Your task to perform on an android device: Show me recent news Image 0: 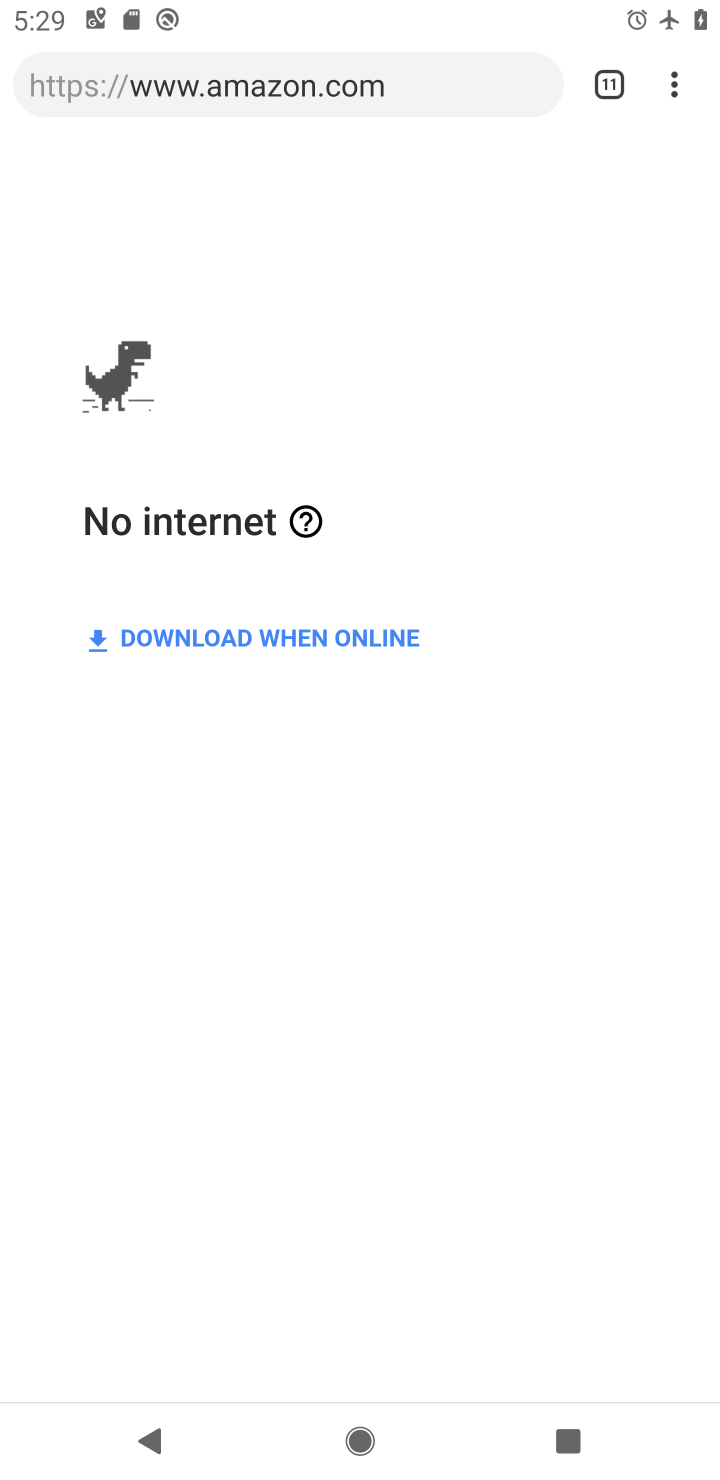
Step 0: press home button
Your task to perform on an android device: Show me recent news Image 1: 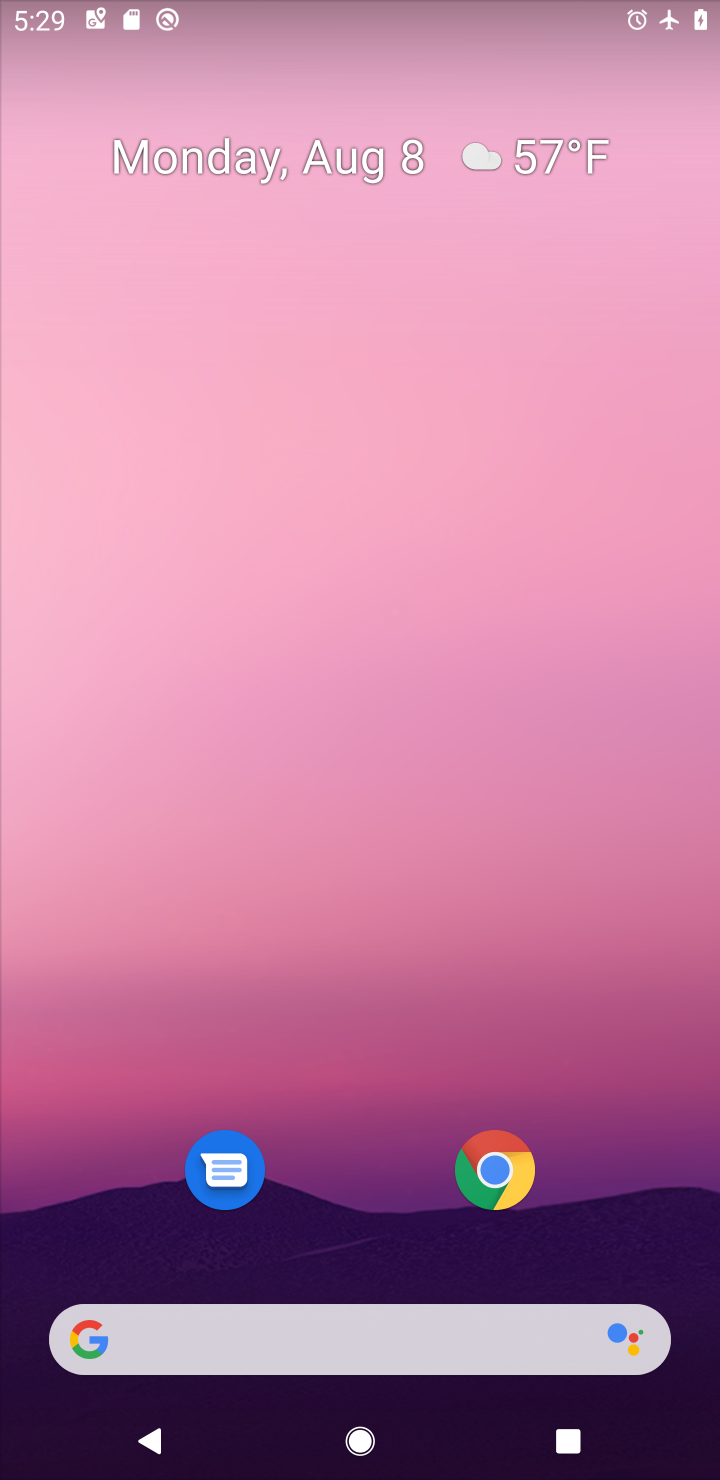
Step 1: drag from (339, 906) to (330, 260)
Your task to perform on an android device: Show me recent news Image 2: 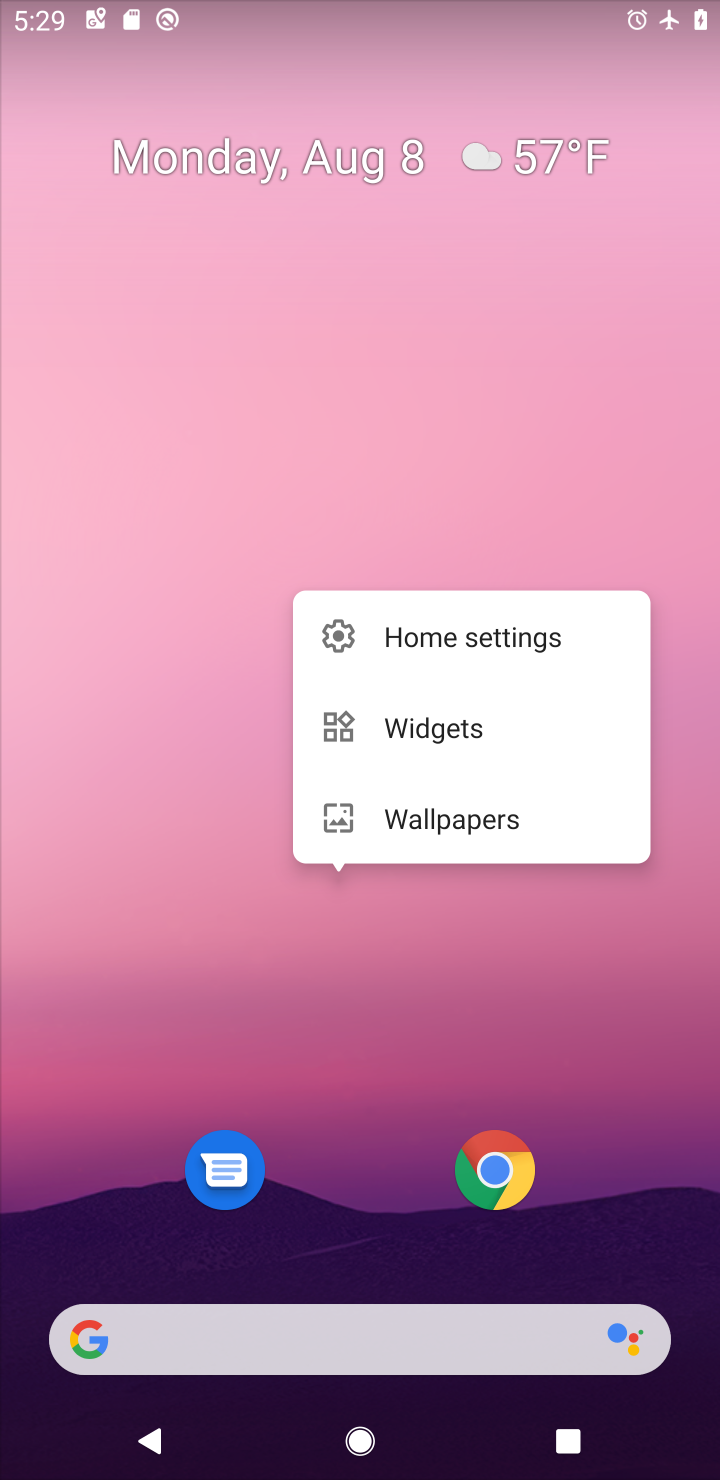
Step 2: click (353, 1039)
Your task to perform on an android device: Show me recent news Image 3: 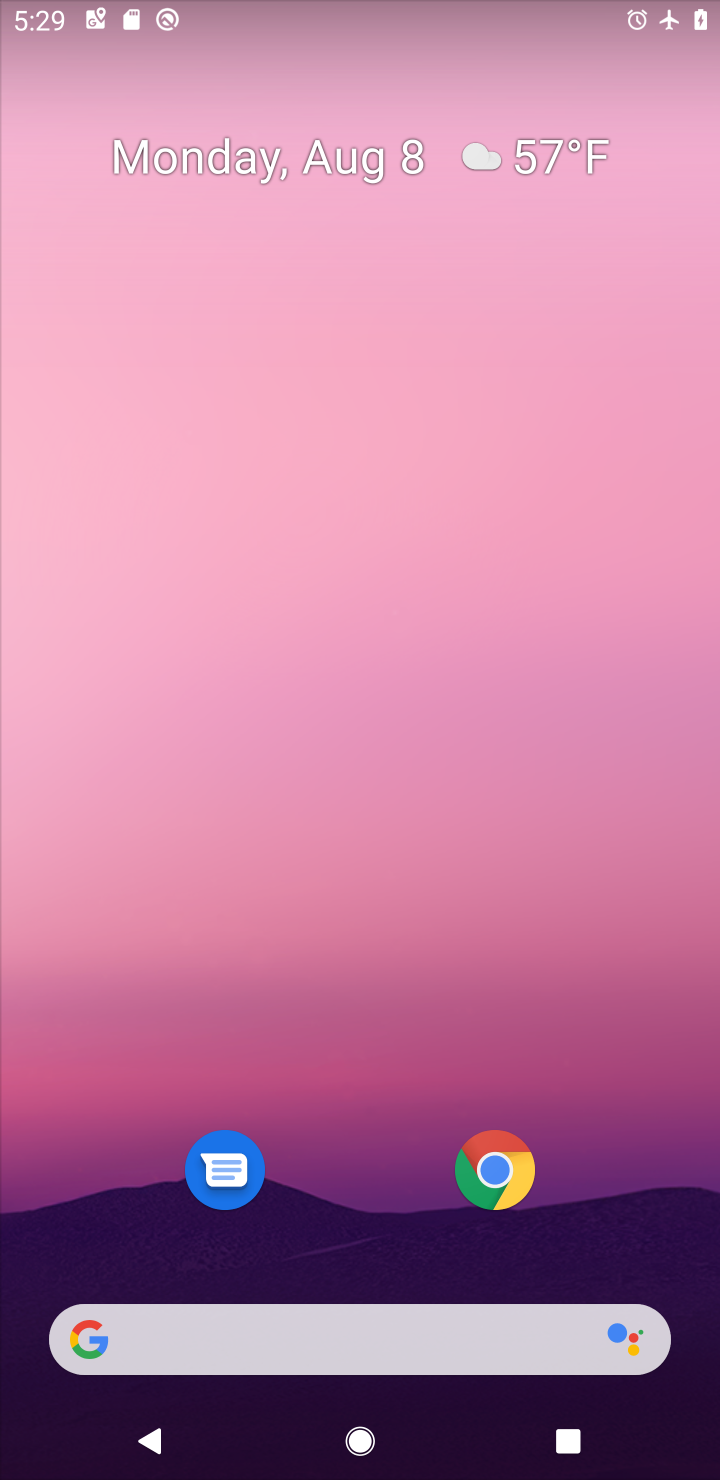
Step 3: drag from (361, 1206) to (355, 413)
Your task to perform on an android device: Show me recent news Image 4: 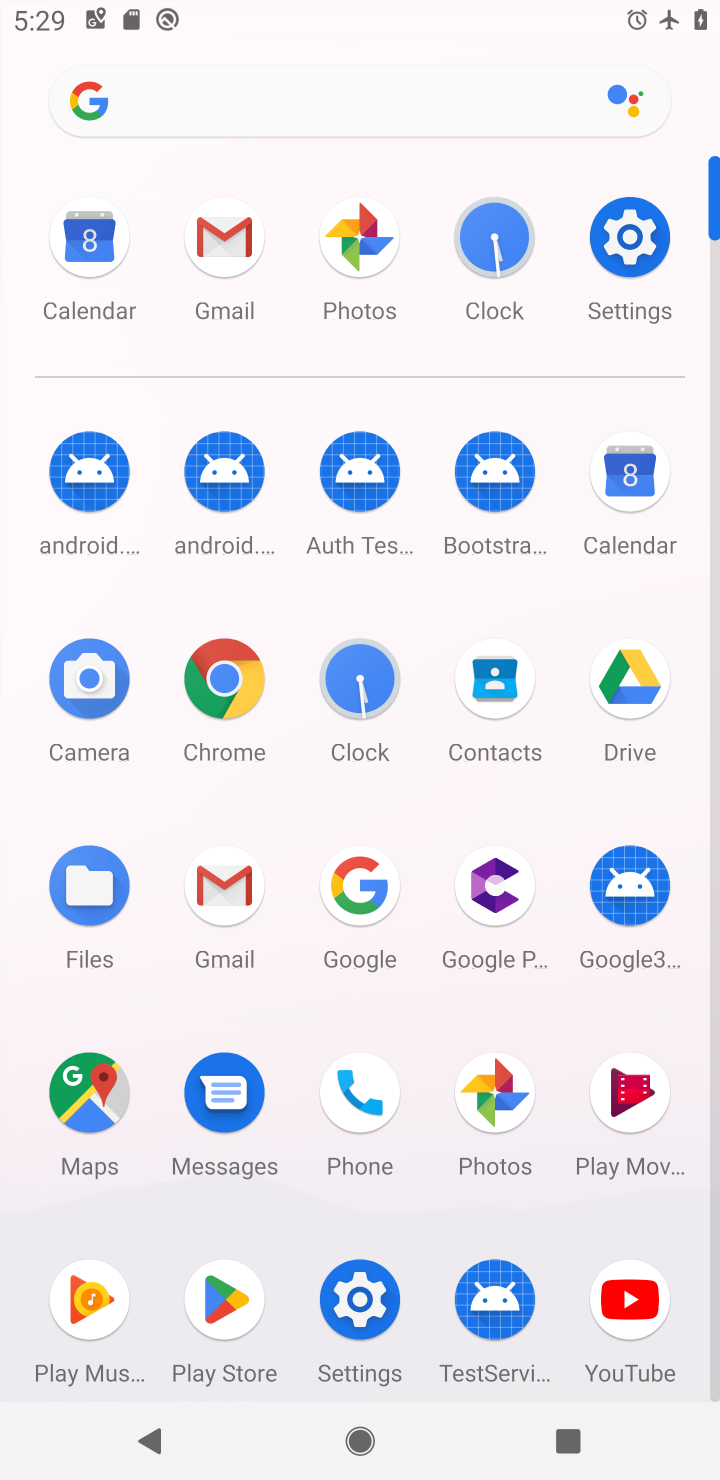
Step 4: click (346, 906)
Your task to perform on an android device: Show me recent news Image 5: 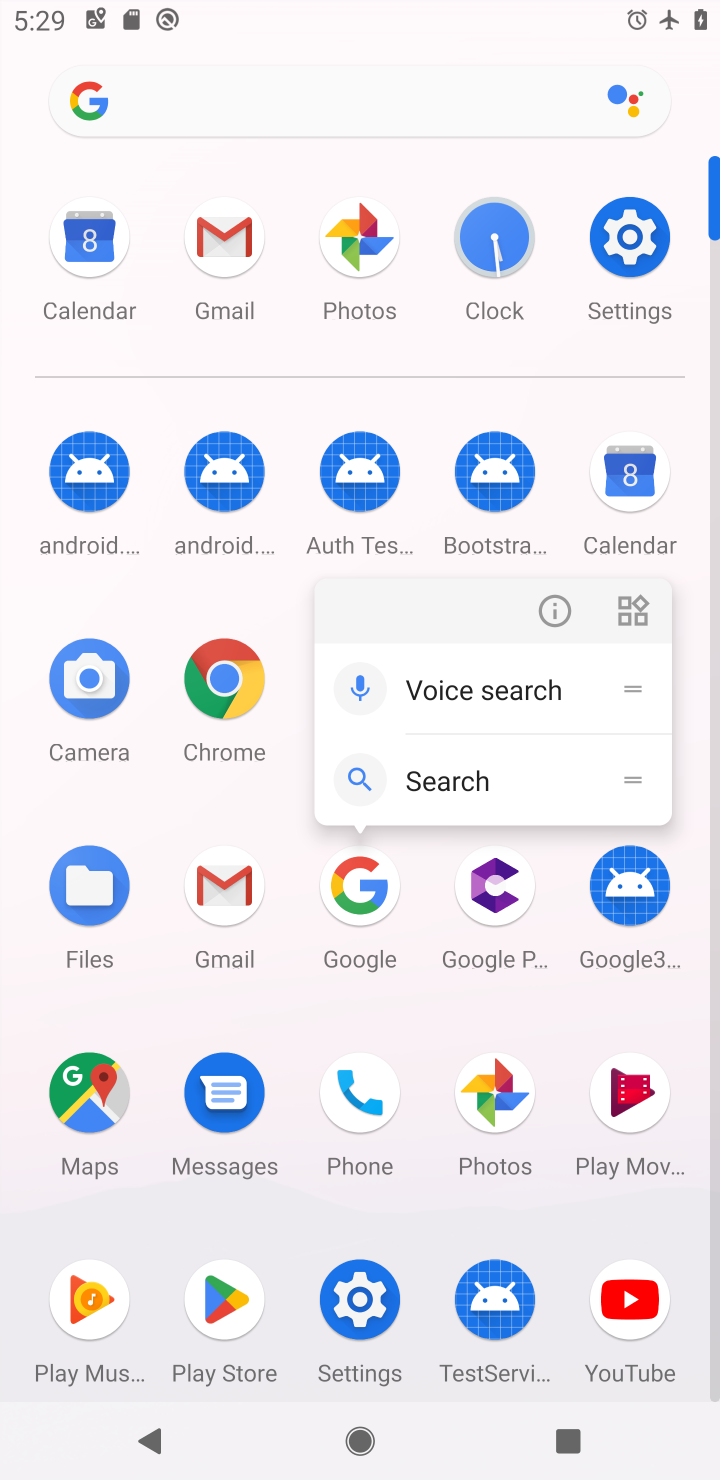
Step 5: click (332, 915)
Your task to perform on an android device: Show me recent news Image 6: 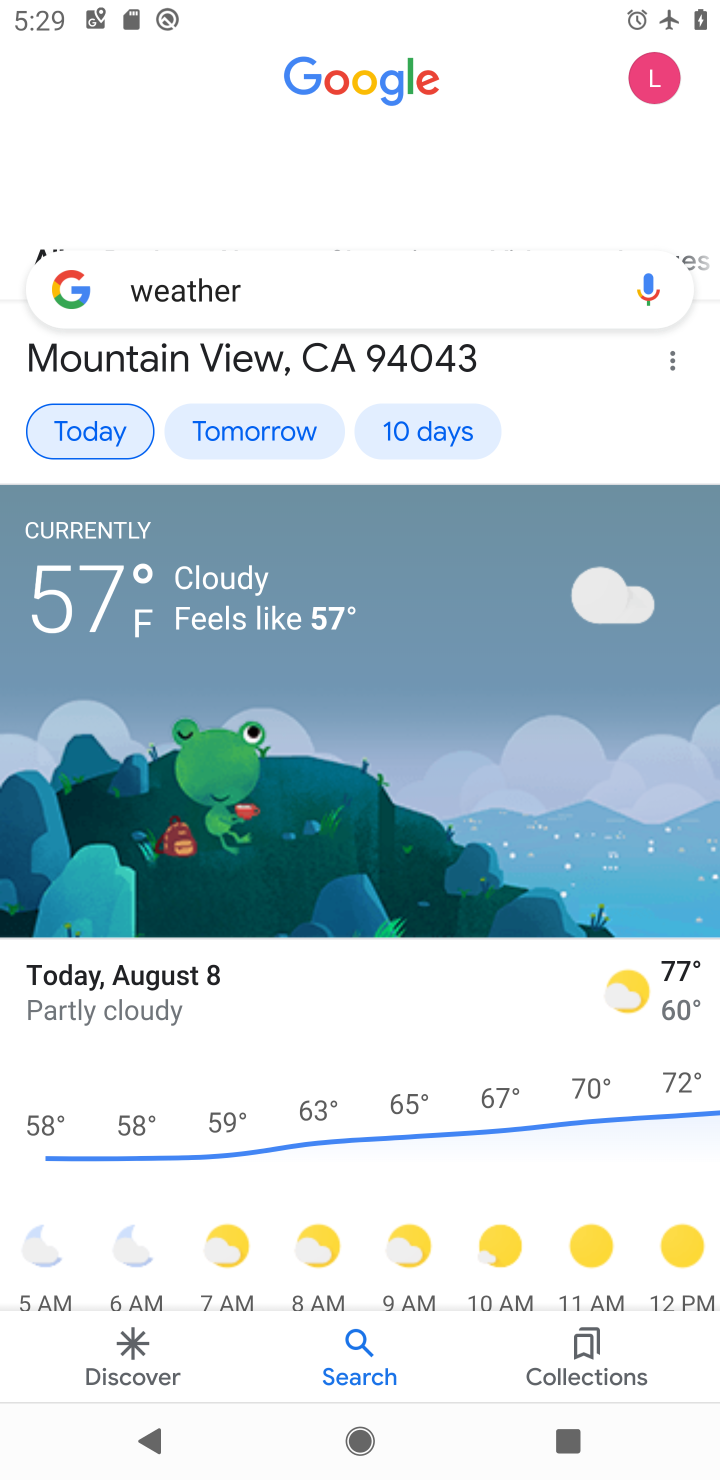
Step 6: click (388, 275)
Your task to perform on an android device: Show me recent news Image 7: 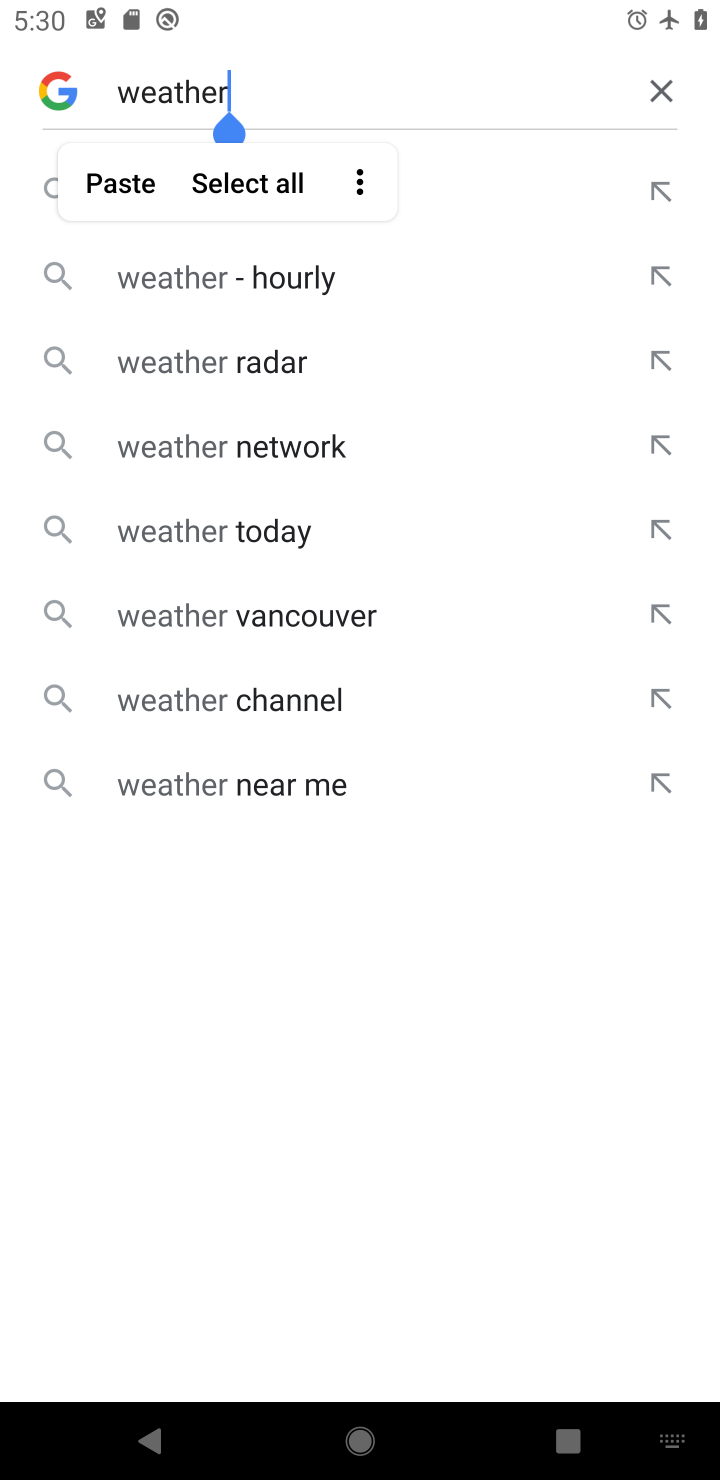
Step 7: click (649, 83)
Your task to perform on an android device: Show me recent news Image 8: 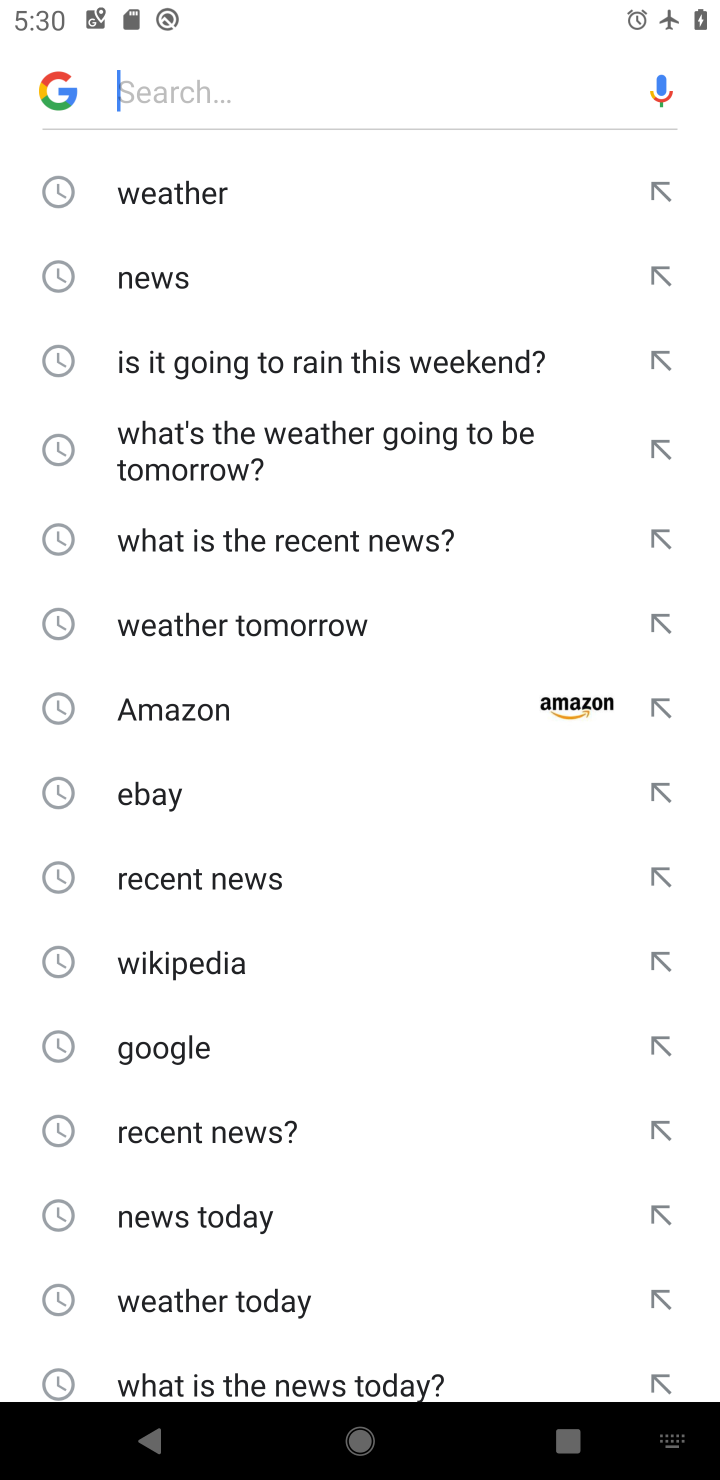
Step 8: click (218, 269)
Your task to perform on an android device: Show me recent news Image 9: 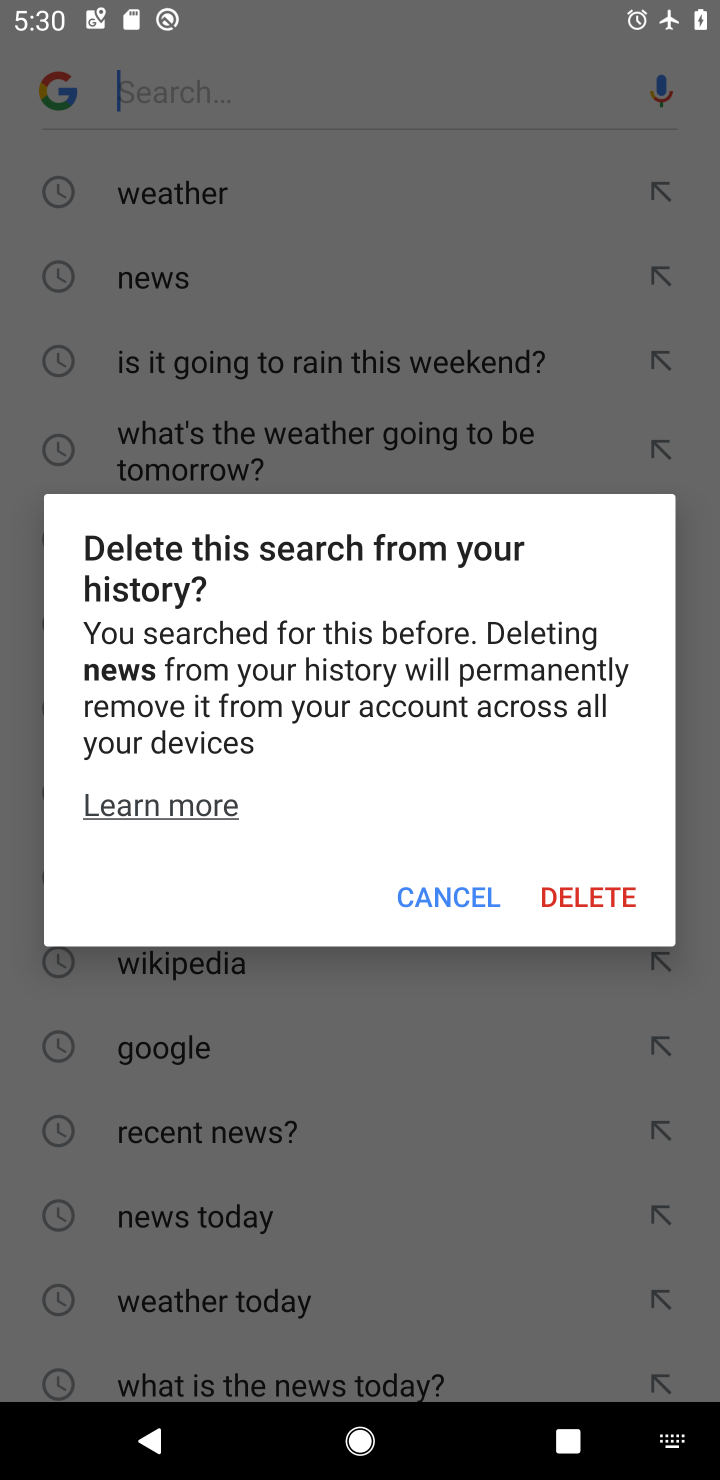
Step 9: click (423, 893)
Your task to perform on an android device: Show me recent news Image 10: 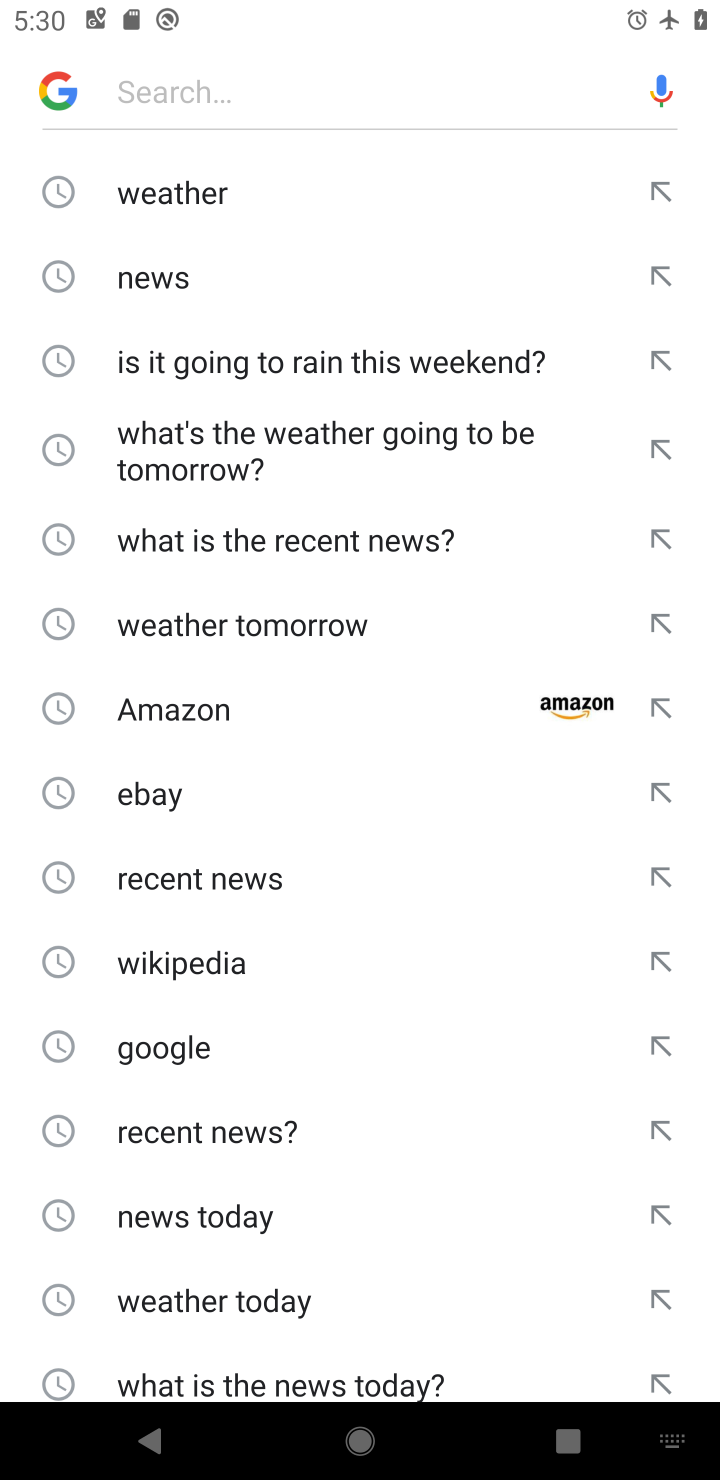
Step 10: click (147, 297)
Your task to perform on an android device: Show me recent news Image 11: 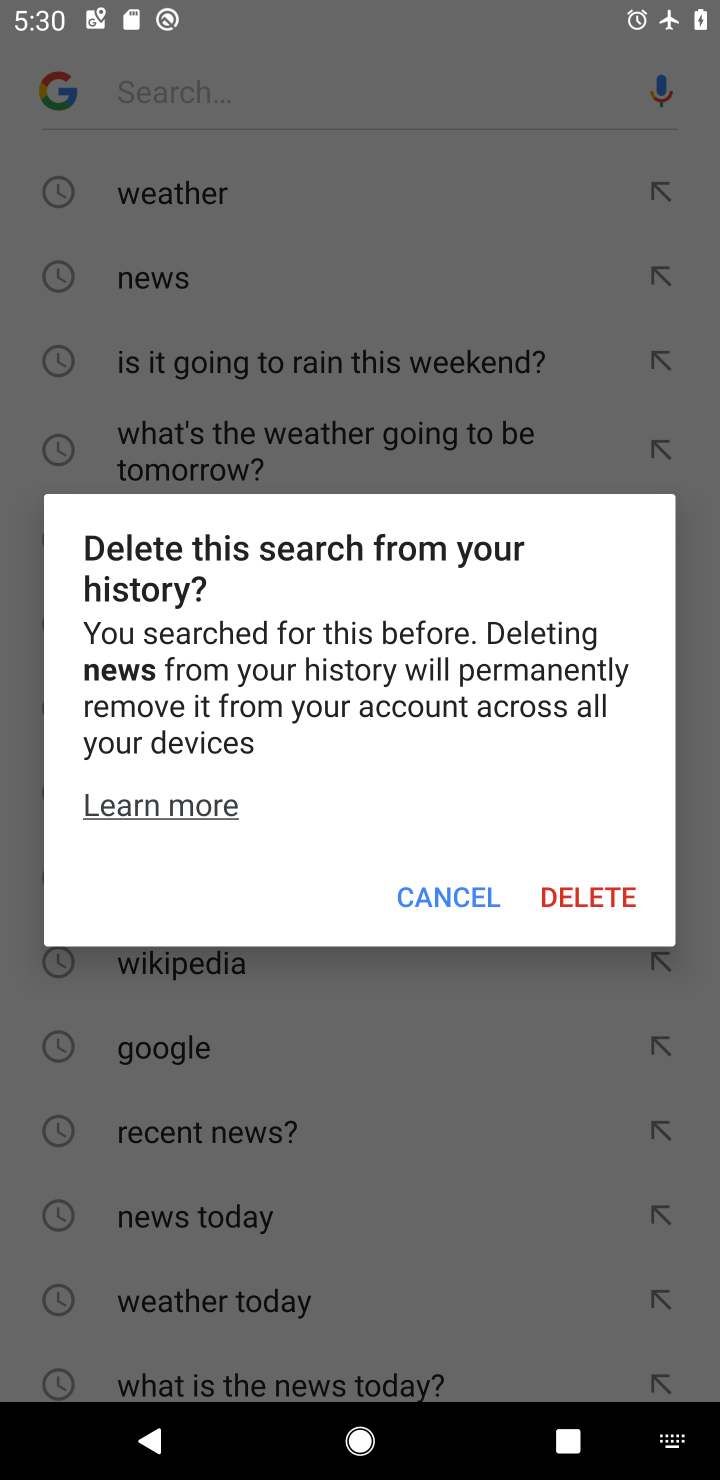
Step 11: click (485, 891)
Your task to perform on an android device: Show me recent news Image 12: 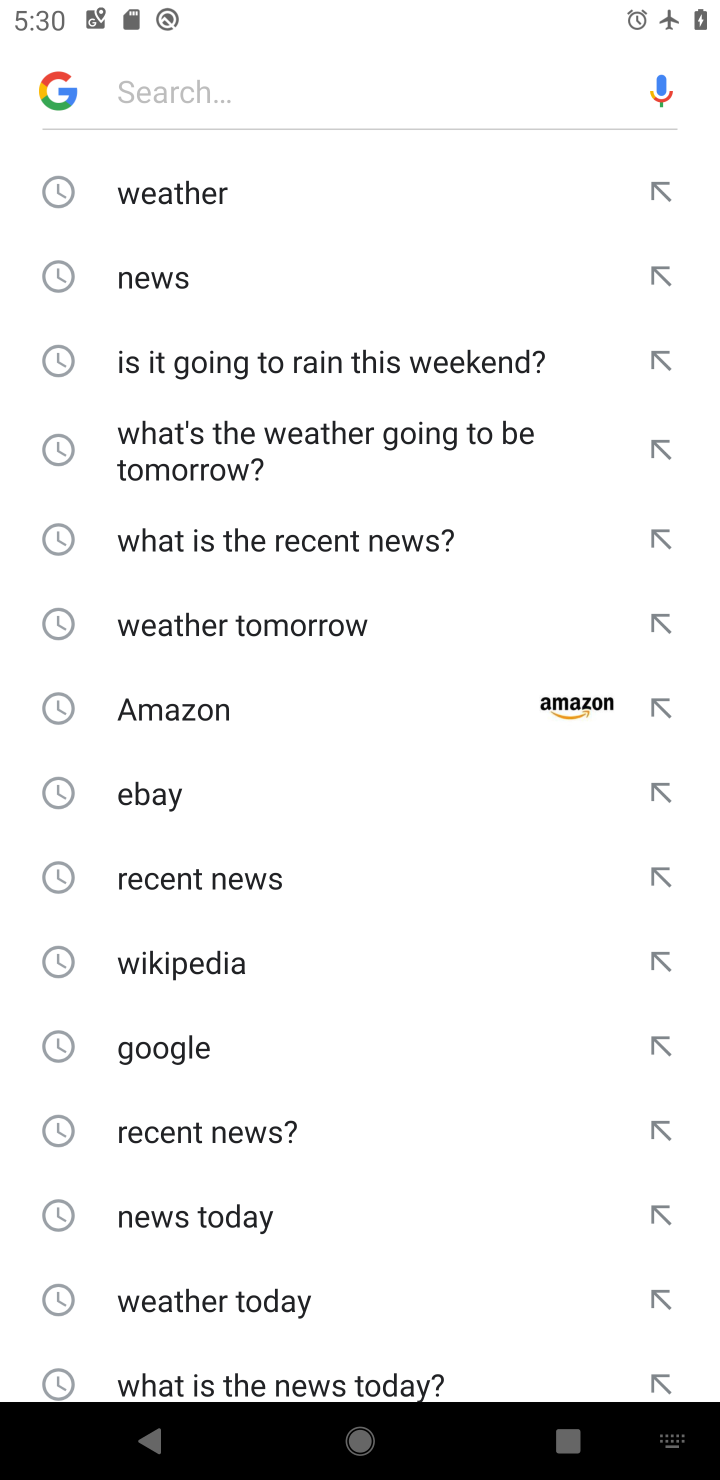
Step 12: click (118, 275)
Your task to perform on an android device: Show me recent news Image 13: 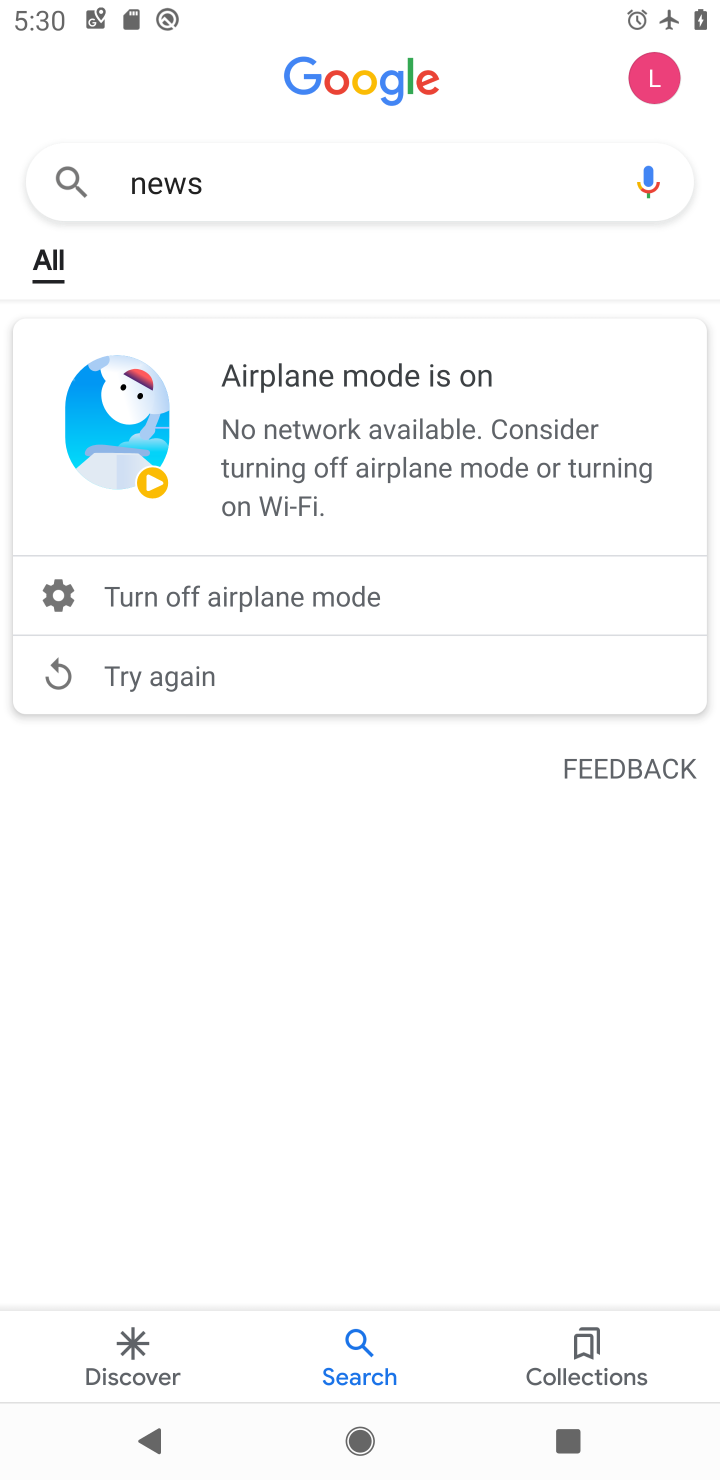
Step 13: task complete